Your task to perform on an android device: Open the calendar and show me this week's events? Image 0: 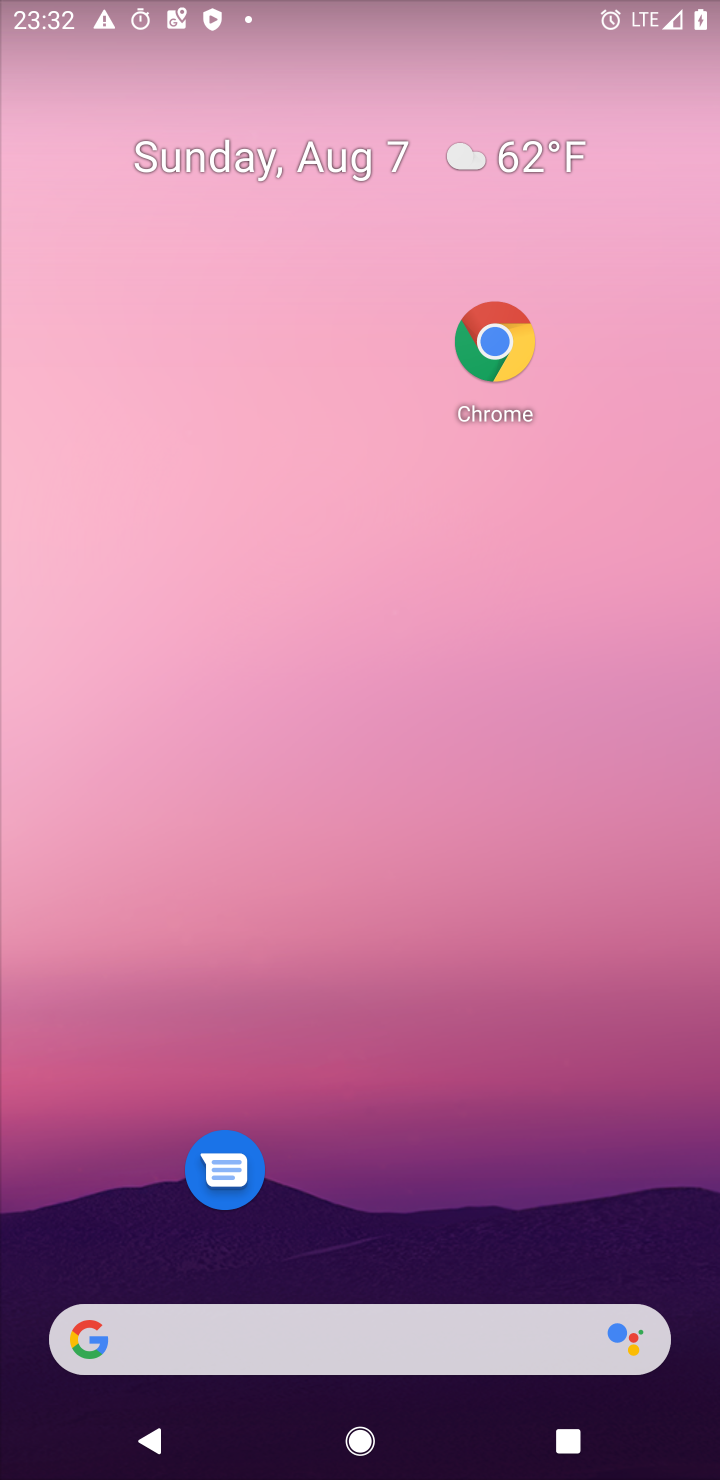
Step 0: drag from (299, 1339) to (402, 401)
Your task to perform on an android device: Open the calendar and show me this week's events? Image 1: 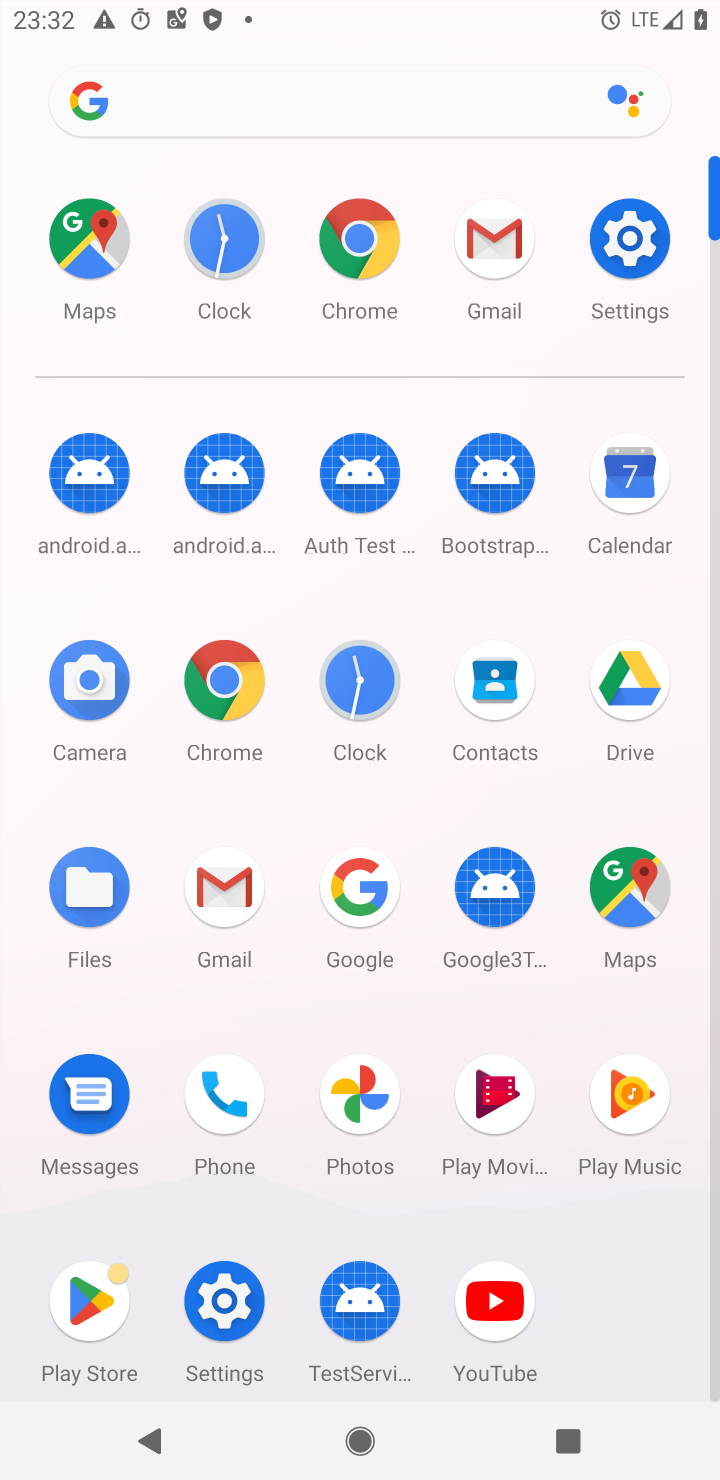
Step 1: click (661, 488)
Your task to perform on an android device: Open the calendar and show me this week's events? Image 2: 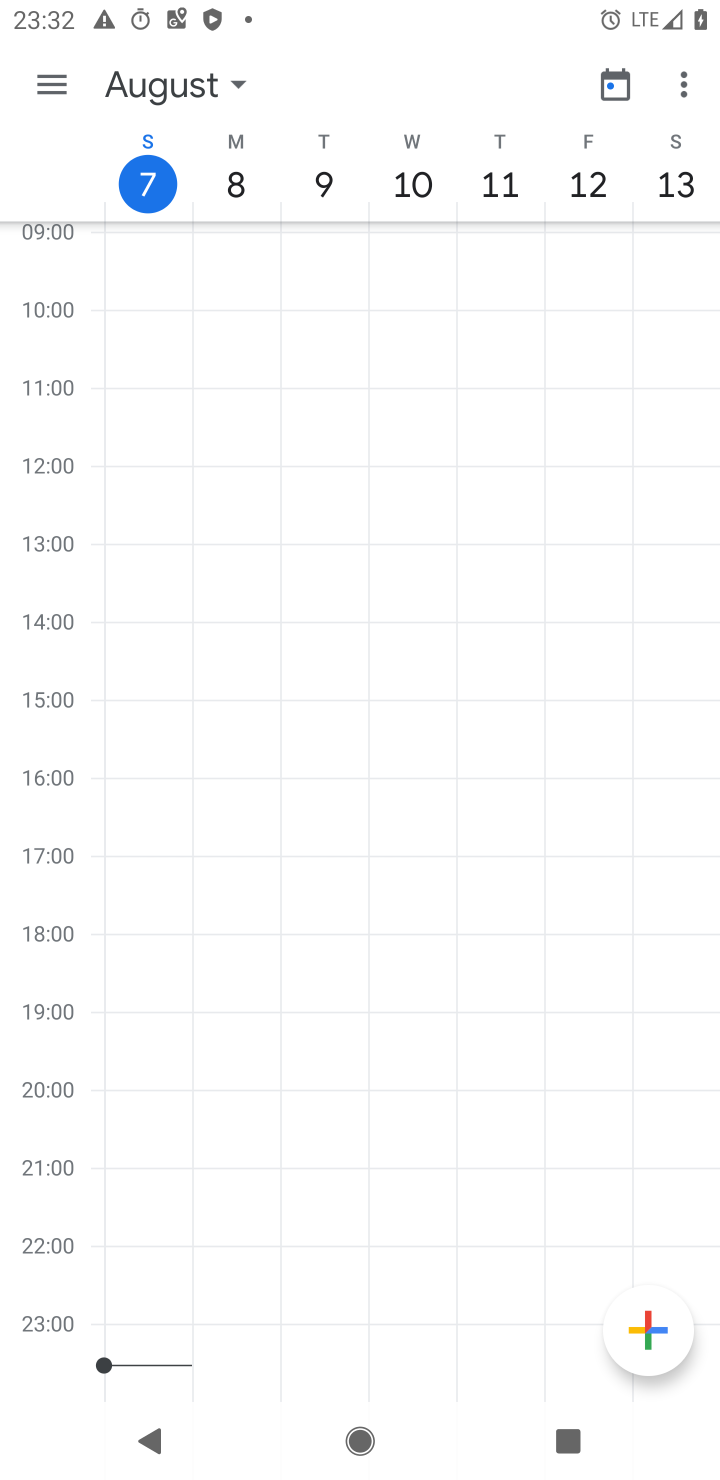
Step 2: click (230, 83)
Your task to perform on an android device: Open the calendar and show me this week's events? Image 3: 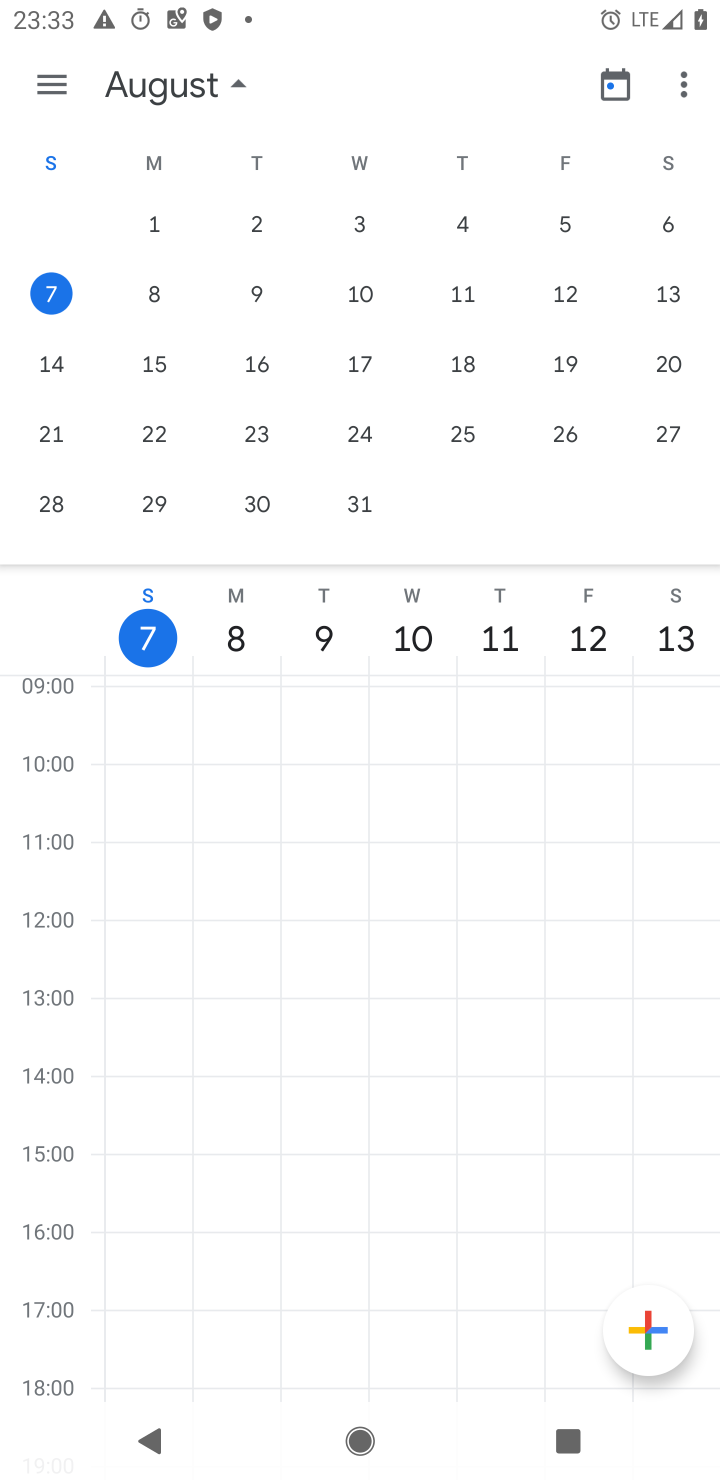
Step 3: click (362, 302)
Your task to perform on an android device: Open the calendar and show me this week's events? Image 4: 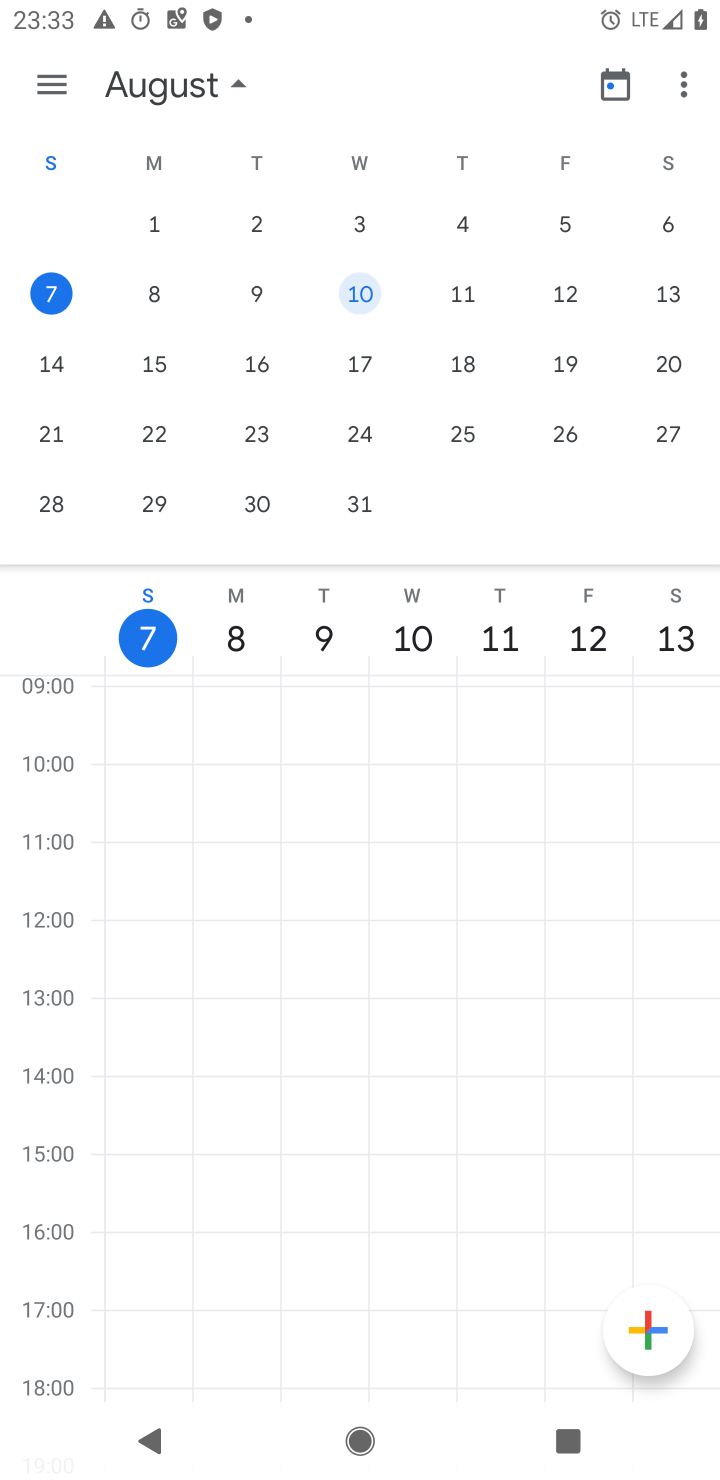
Step 4: task complete